Your task to perform on an android device: see tabs open on other devices in the chrome app Image 0: 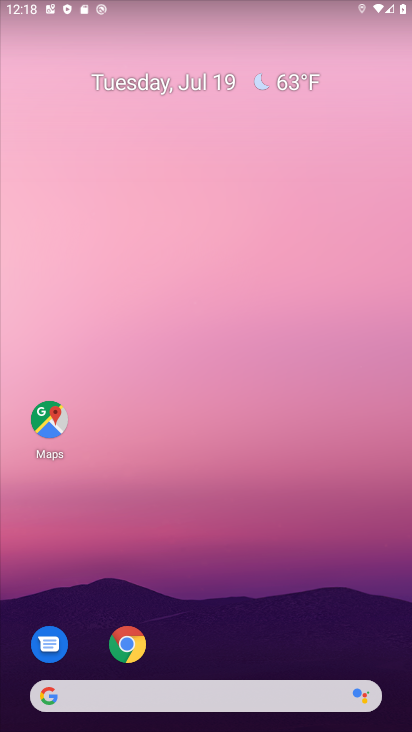
Step 0: click (122, 652)
Your task to perform on an android device: see tabs open on other devices in the chrome app Image 1: 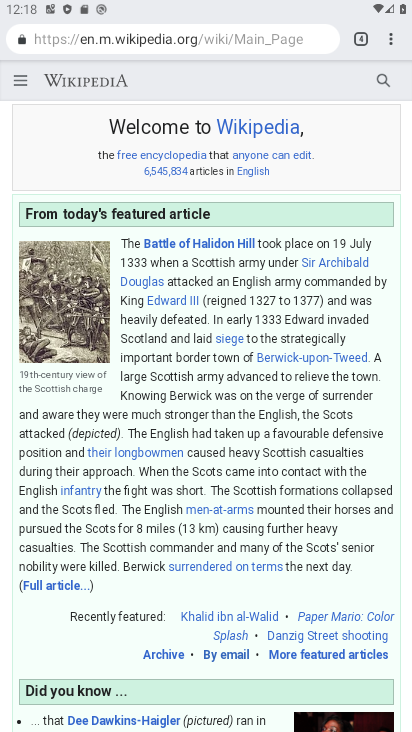
Step 1: click (389, 42)
Your task to perform on an android device: see tabs open on other devices in the chrome app Image 2: 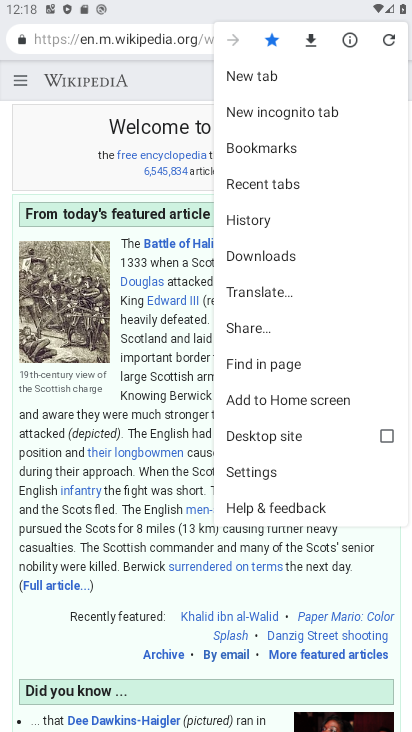
Step 2: click (264, 185)
Your task to perform on an android device: see tabs open on other devices in the chrome app Image 3: 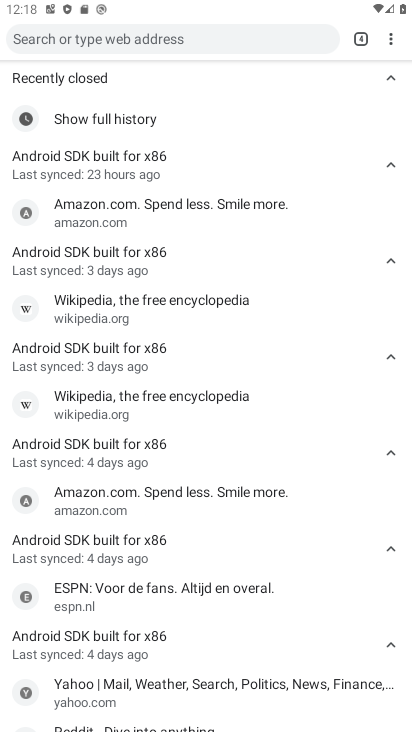
Step 3: task complete